Your task to perform on an android device: allow cookies in the chrome app Image 0: 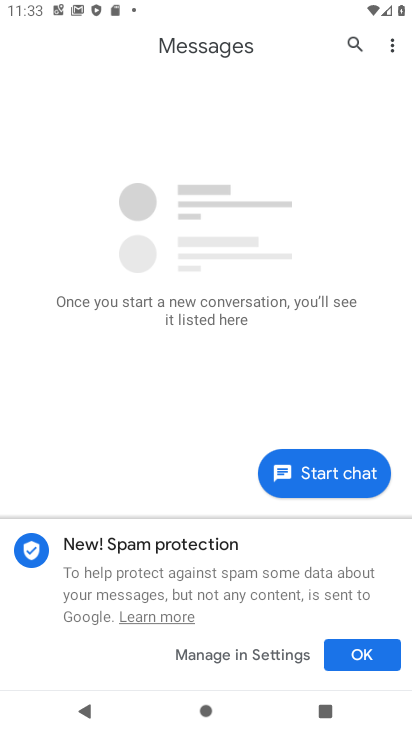
Step 0: press home button
Your task to perform on an android device: allow cookies in the chrome app Image 1: 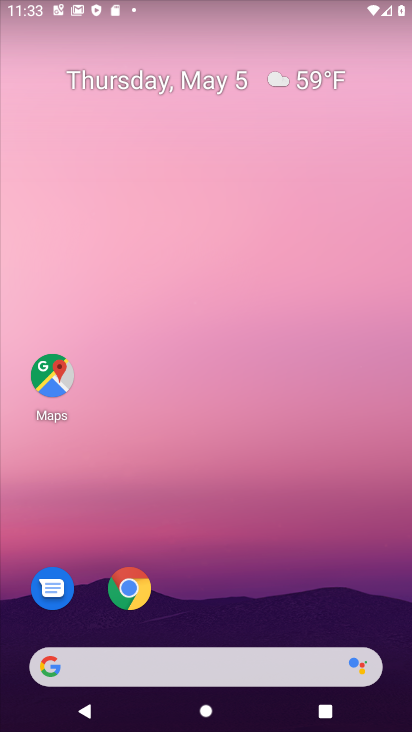
Step 1: drag from (202, 665) to (316, 185)
Your task to perform on an android device: allow cookies in the chrome app Image 2: 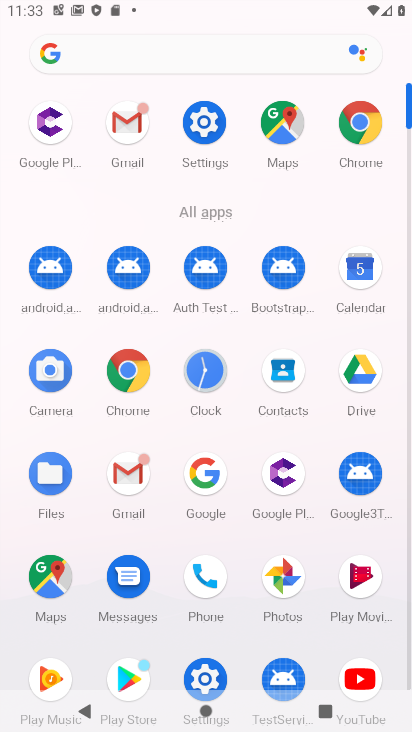
Step 2: click (355, 129)
Your task to perform on an android device: allow cookies in the chrome app Image 3: 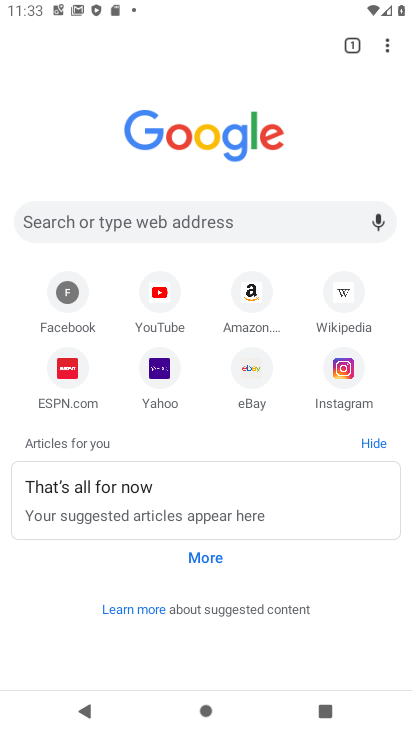
Step 3: drag from (386, 41) to (240, 385)
Your task to perform on an android device: allow cookies in the chrome app Image 4: 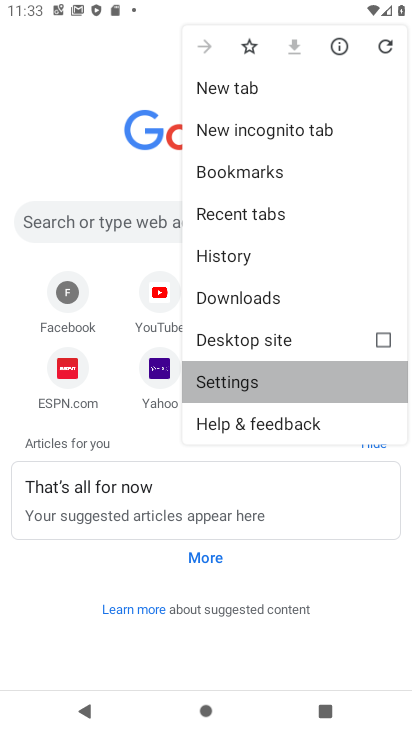
Step 4: click (240, 385)
Your task to perform on an android device: allow cookies in the chrome app Image 5: 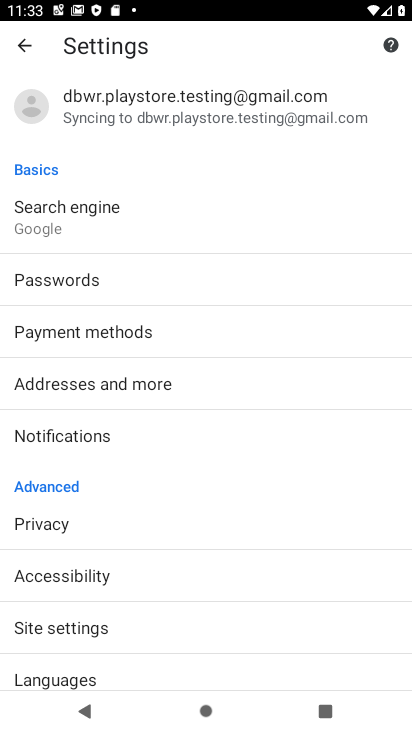
Step 5: click (89, 633)
Your task to perform on an android device: allow cookies in the chrome app Image 6: 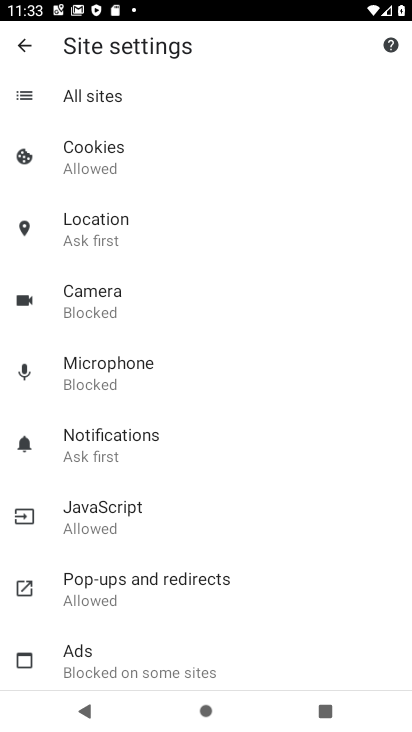
Step 6: click (116, 170)
Your task to perform on an android device: allow cookies in the chrome app Image 7: 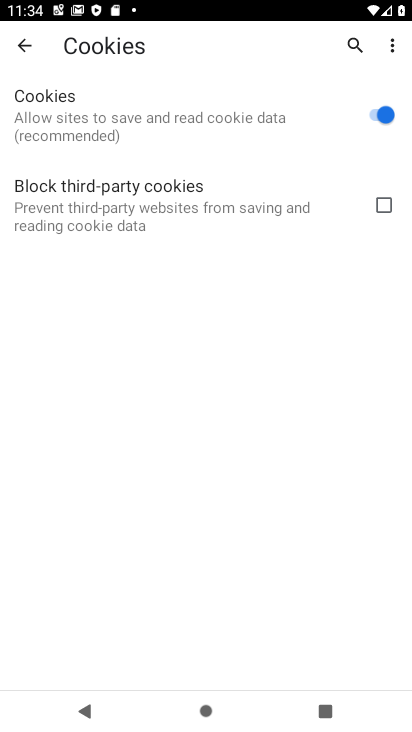
Step 7: task complete